Your task to perform on an android device: toggle sleep mode Image 0: 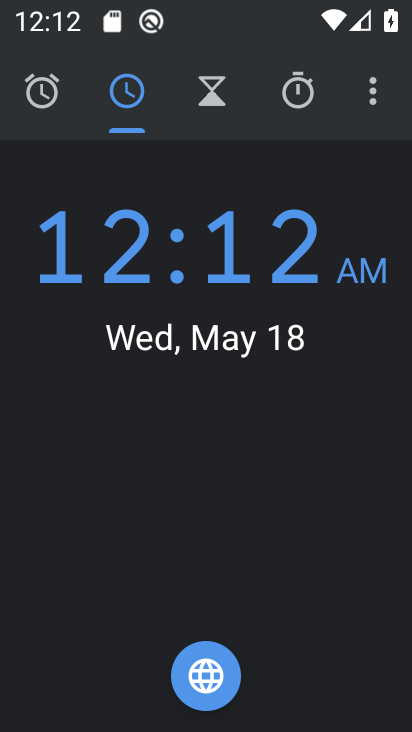
Step 0: press home button
Your task to perform on an android device: toggle sleep mode Image 1: 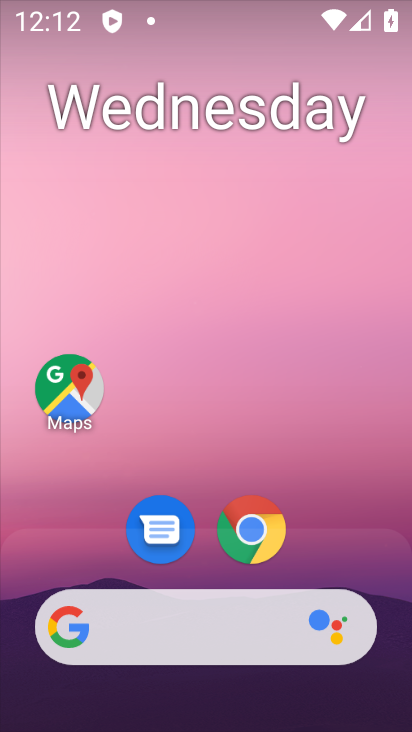
Step 1: drag from (267, 592) to (377, 8)
Your task to perform on an android device: toggle sleep mode Image 2: 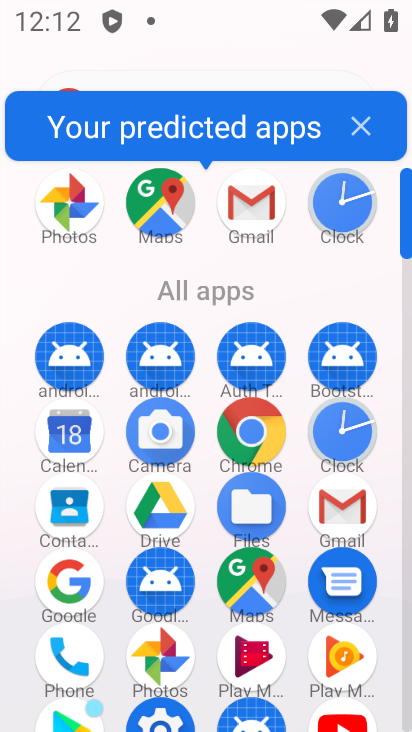
Step 2: drag from (290, 673) to (305, 489)
Your task to perform on an android device: toggle sleep mode Image 3: 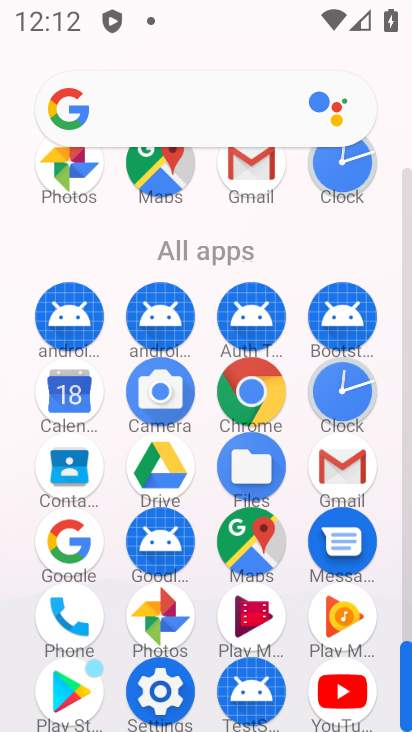
Step 3: click (161, 665)
Your task to perform on an android device: toggle sleep mode Image 4: 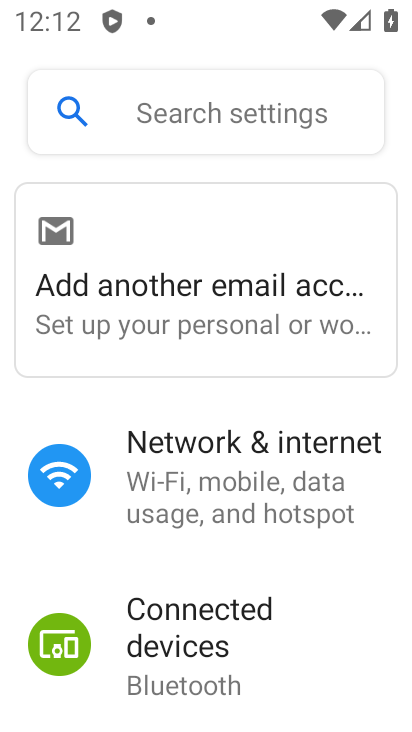
Step 4: drag from (297, 702) to (352, 239)
Your task to perform on an android device: toggle sleep mode Image 5: 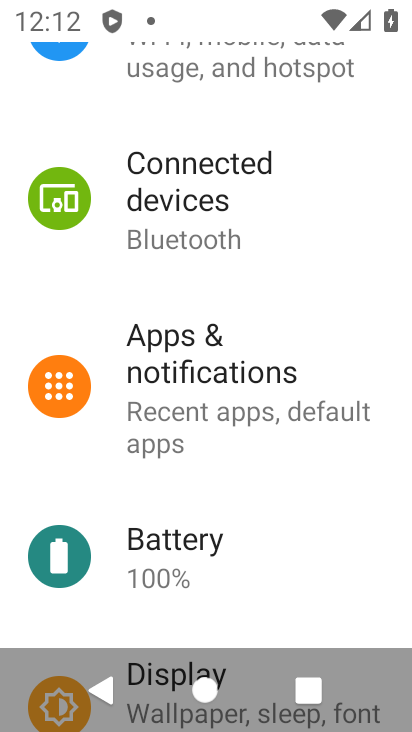
Step 5: drag from (292, 619) to (297, 365)
Your task to perform on an android device: toggle sleep mode Image 6: 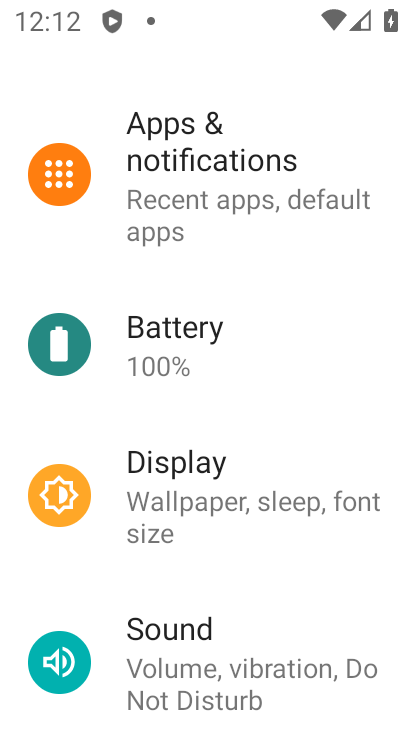
Step 6: click (208, 502)
Your task to perform on an android device: toggle sleep mode Image 7: 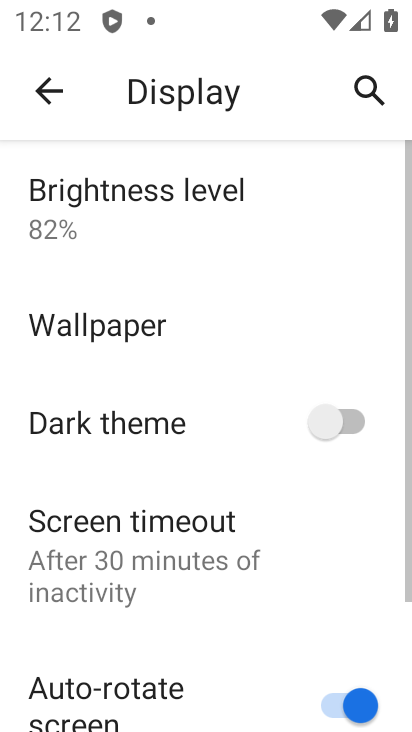
Step 7: drag from (193, 612) to (254, 171)
Your task to perform on an android device: toggle sleep mode Image 8: 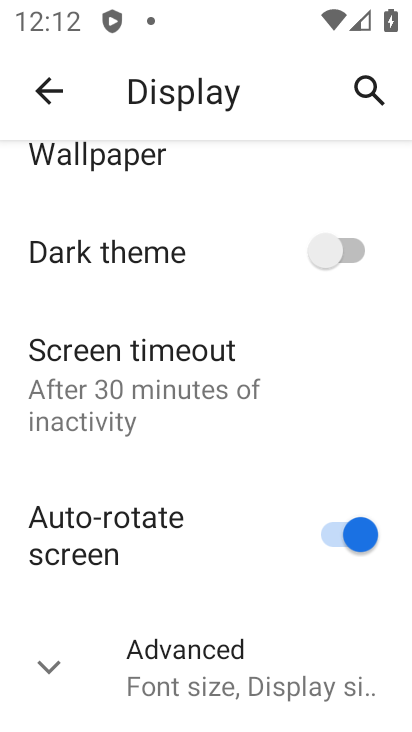
Step 8: click (43, 663)
Your task to perform on an android device: toggle sleep mode Image 9: 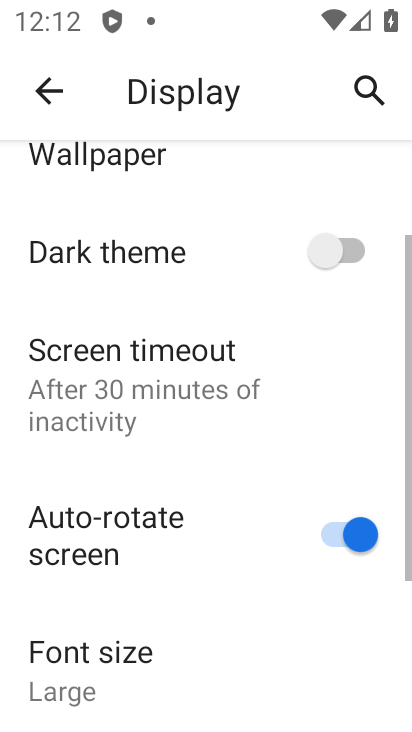
Step 9: task complete